Your task to perform on an android device: find photos in the google photos app Image 0: 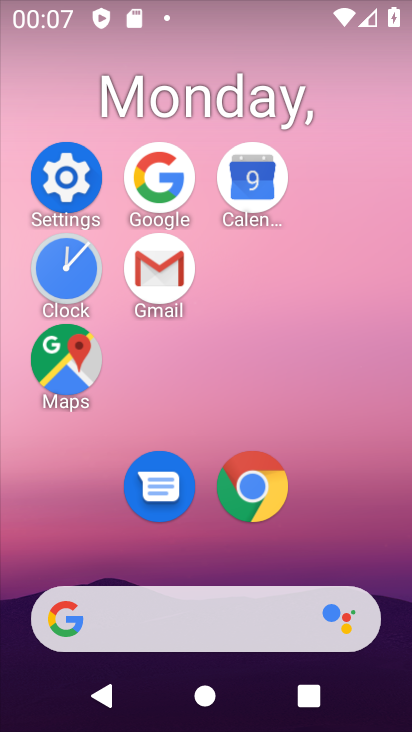
Step 0: drag from (280, 532) to (317, 151)
Your task to perform on an android device: find photos in the google photos app Image 1: 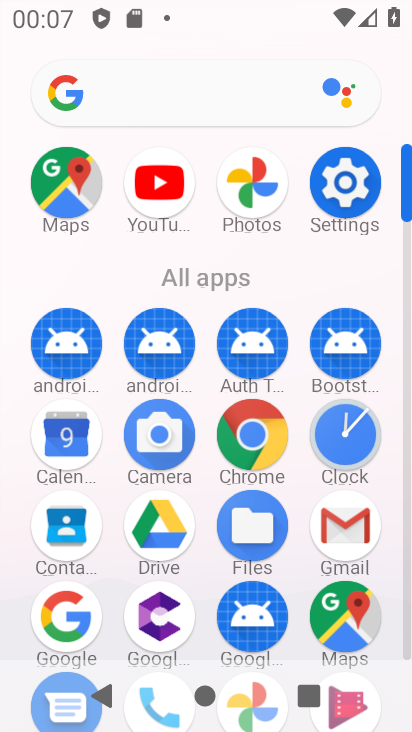
Step 1: click (274, 203)
Your task to perform on an android device: find photos in the google photos app Image 2: 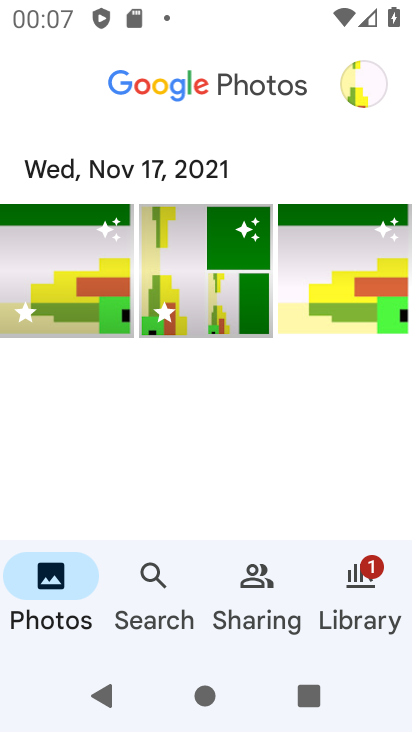
Step 2: click (97, 264)
Your task to perform on an android device: find photos in the google photos app Image 3: 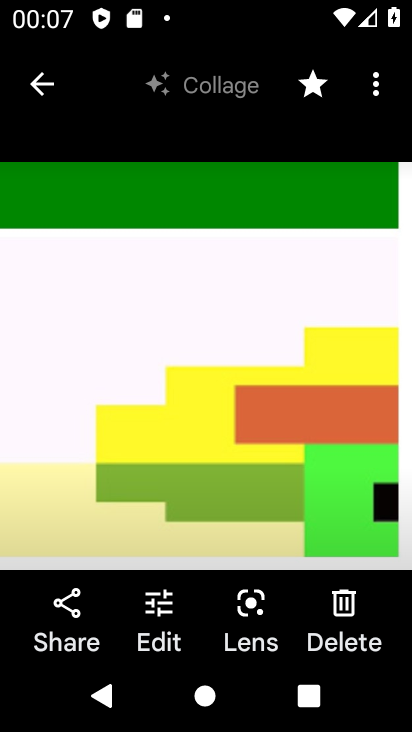
Step 3: task complete